Your task to perform on an android device: turn on improve location accuracy Image 0: 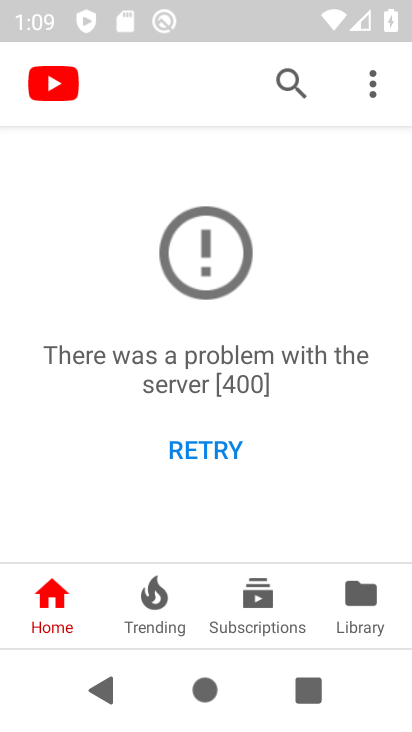
Step 0: press back button
Your task to perform on an android device: turn on improve location accuracy Image 1: 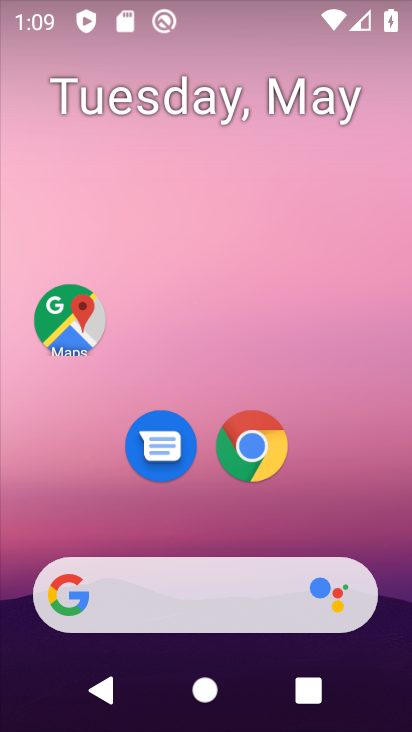
Step 1: drag from (211, 543) to (157, 31)
Your task to perform on an android device: turn on improve location accuracy Image 2: 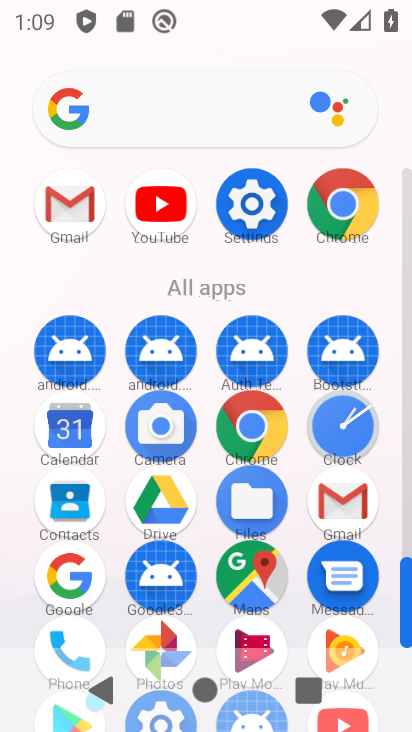
Step 2: click (235, 223)
Your task to perform on an android device: turn on improve location accuracy Image 3: 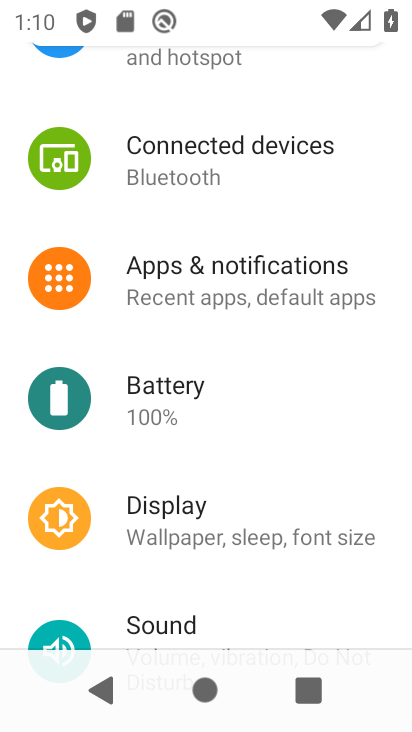
Step 3: drag from (173, 537) to (165, 97)
Your task to perform on an android device: turn on improve location accuracy Image 4: 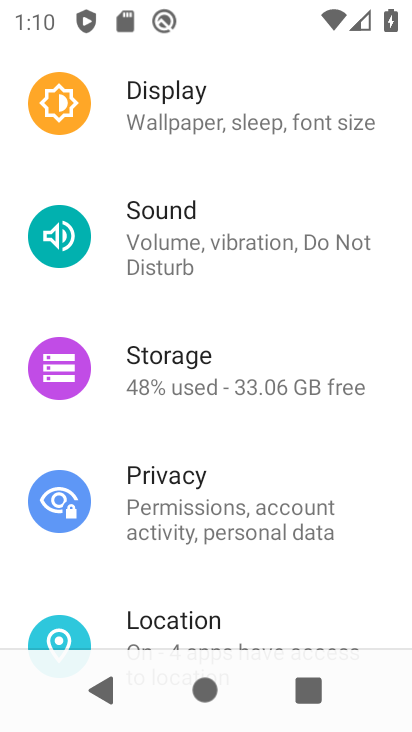
Step 4: click (193, 594)
Your task to perform on an android device: turn on improve location accuracy Image 5: 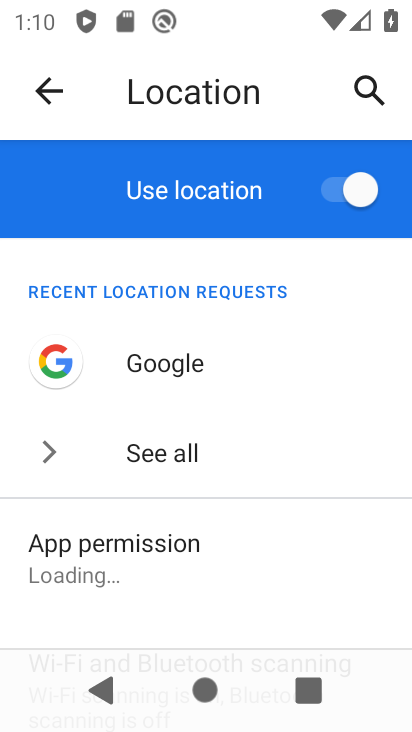
Step 5: drag from (237, 609) to (208, 159)
Your task to perform on an android device: turn on improve location accuracy Image 6: 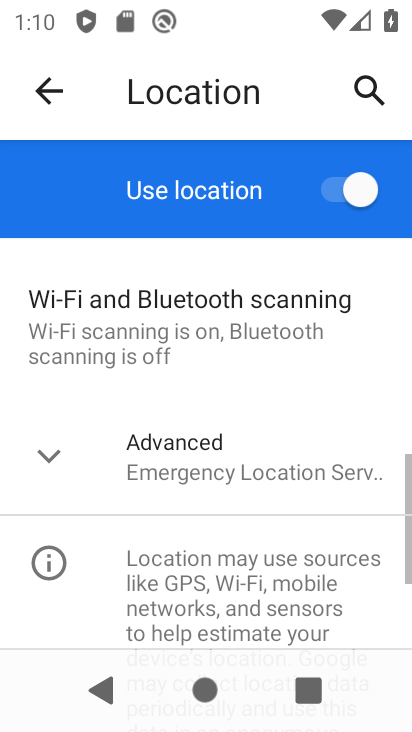
Step 6: click (204, 455)
Your task to perform on an android device: turn on improve location accuracy Image 7: 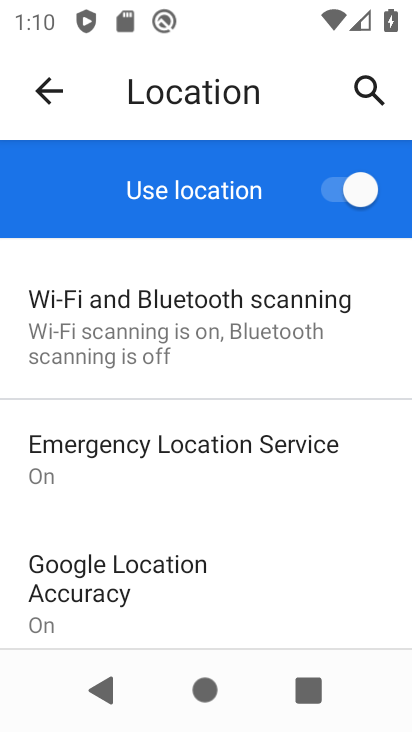
Step 7: click (197, 586)
Your task to perform on an android device: turn on improve location accuracy Image 8: 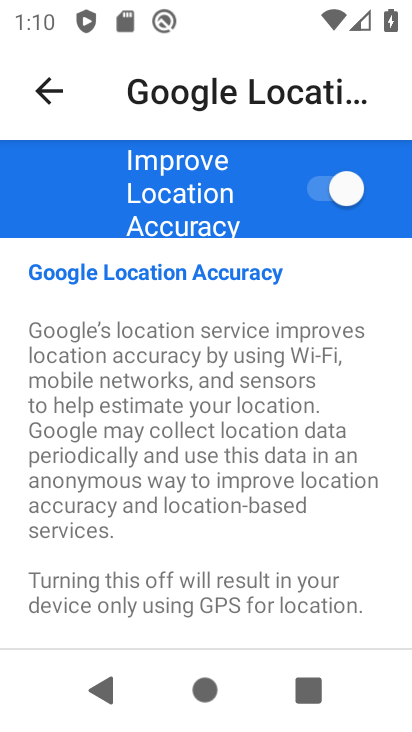
Step 8: task complete